Your task to perform on an android device: turn on showing notifications on the lock screen Image 0: 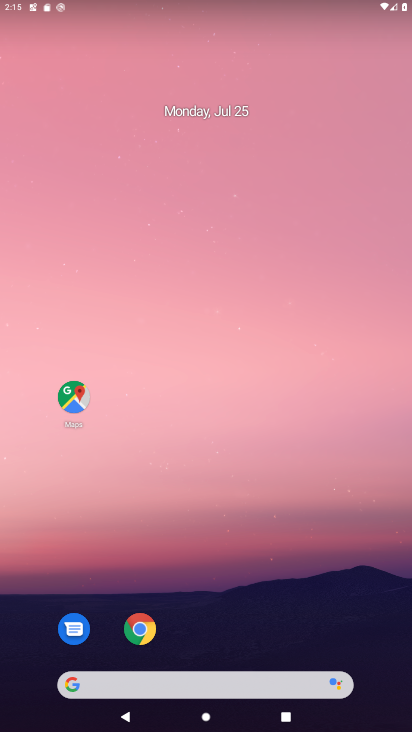
Step 0: drag from (328, 490) to (222, 3)
Your task to perform on an android device: turn on showing notifications on the lock screen Image 1: 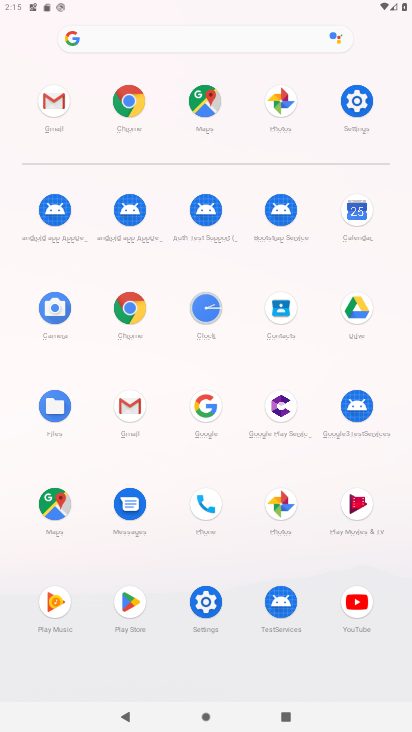
Step 1: click (340, 104)
Your task to perform on an android device: turn on showing notifications on the lock screen Image 2: 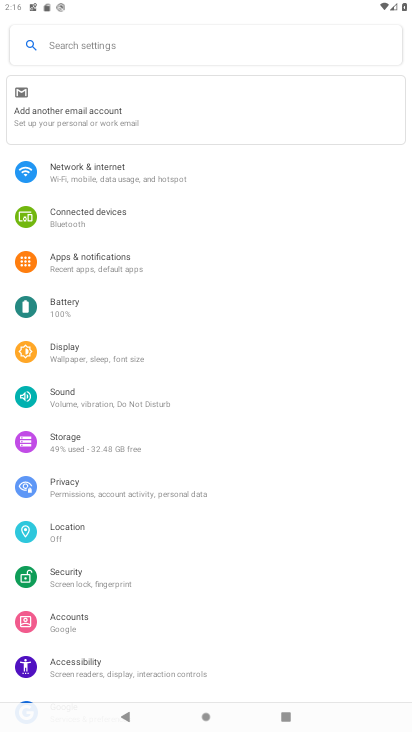
Step 2: click (87, 270)
Your task to perform on an android device: turn on showing notifications on the lock screen Image 3: 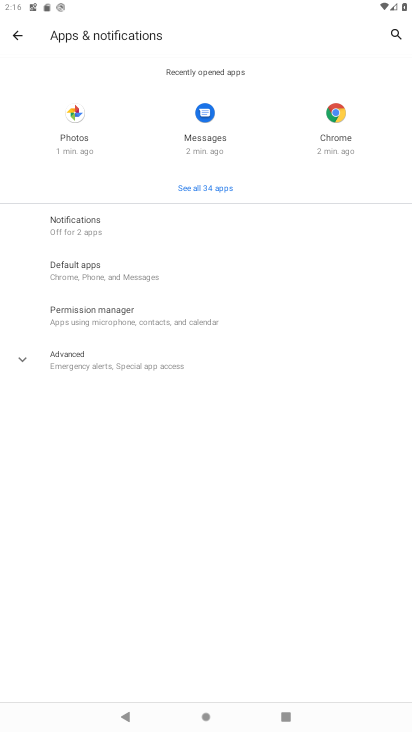
Step 3: click (58, 232)
Your task to perform on an android device: turn on showing notifications on the lock screen Image 4: 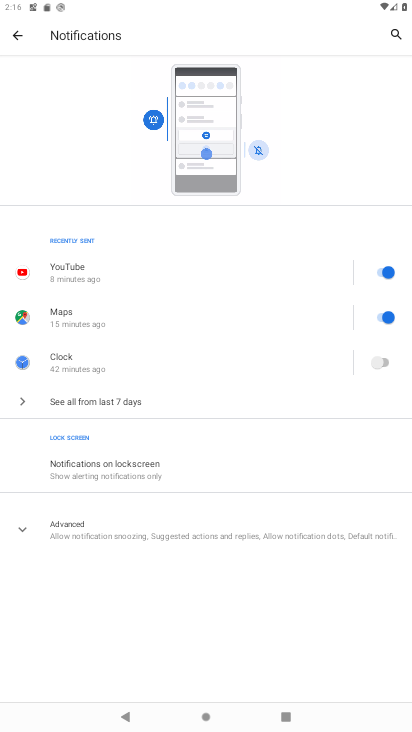
Step 4: click (91, 464)
Your task to perform on an android device: turn on showing notifications on the lock screen Image 5: 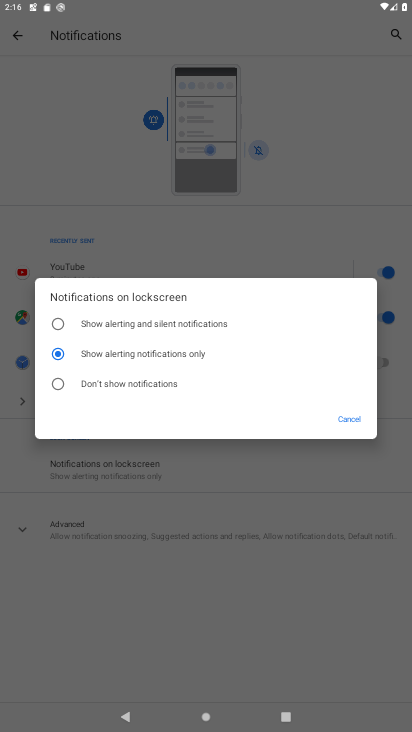
Step 5: task complete